Your task to perform on an android device: check google app version Image 0: 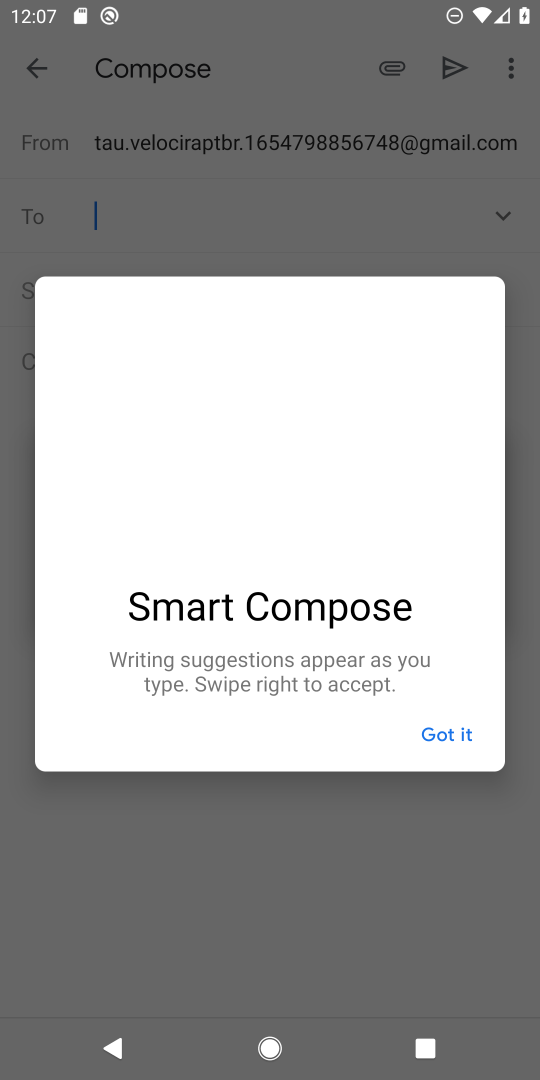
Step 0: press back button
Your task to perform on an android device: check google app version Image 1: 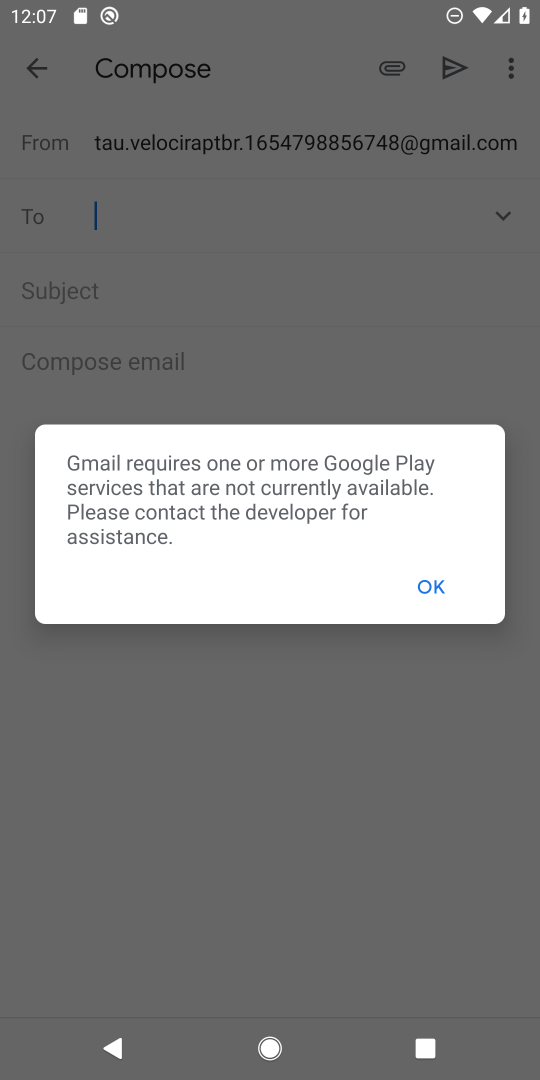
Step 1: click (415, 572)
Your task to perform on an android device: check google app version Image 2: 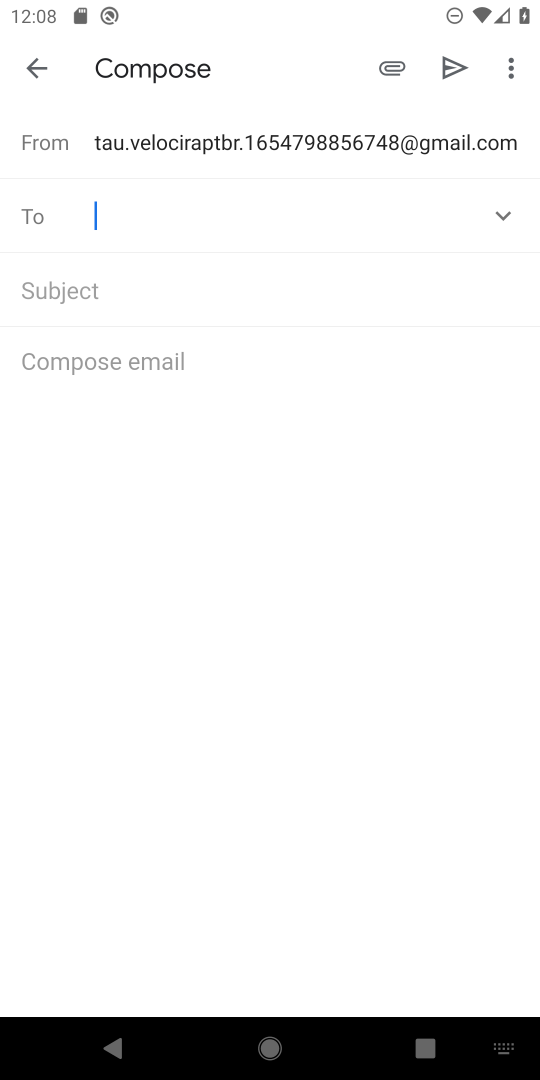
Step 2: press back button
Your task to perform on an android device: check google app version Image 3: 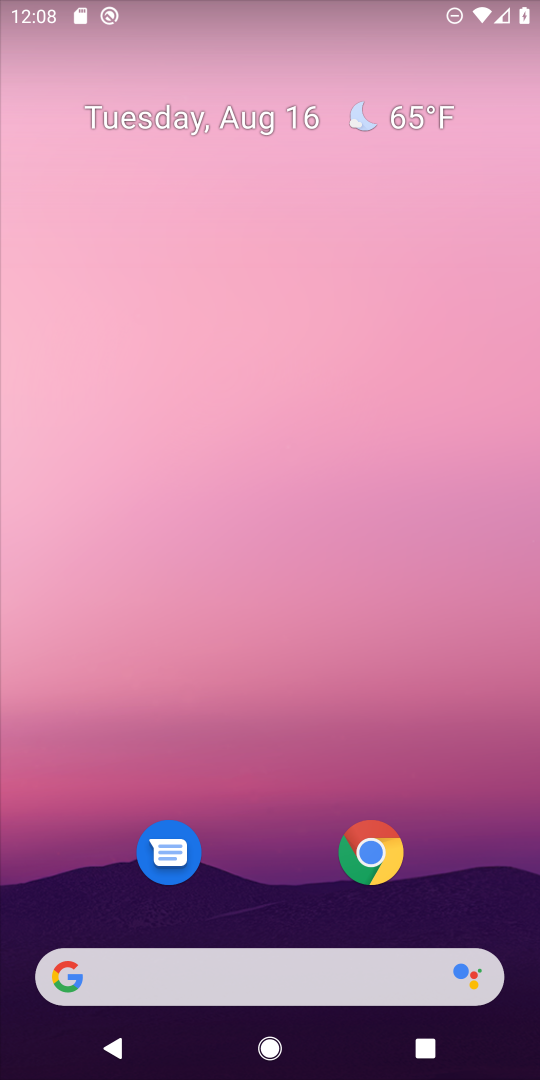
Step 3: drag from (268, 914) to (324, 167)
Your task to perform on an android device: check google app version Image 4: 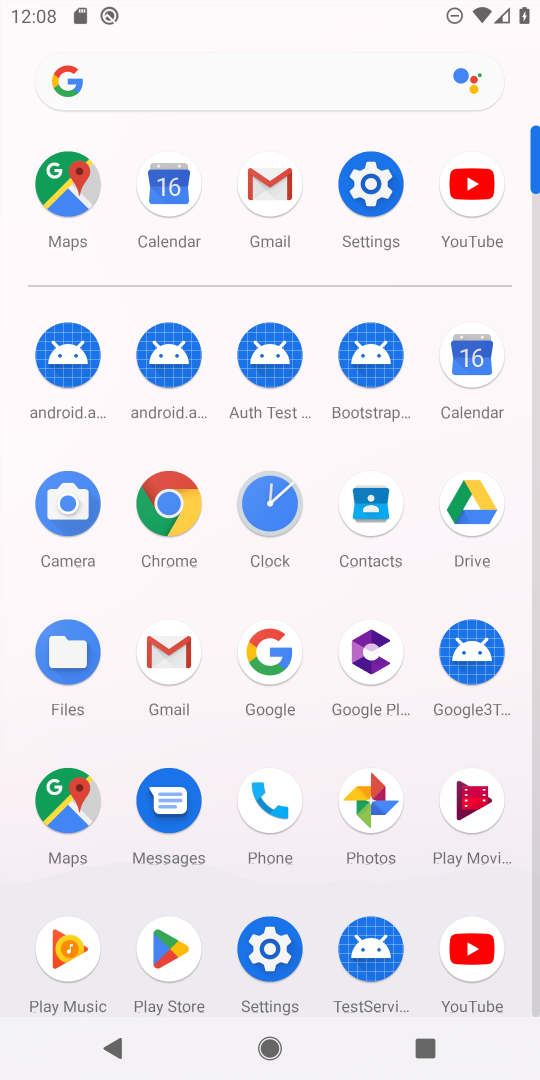
Step 4: click (267, 667)
Your task to perform on an android device: check google app version Image 5: 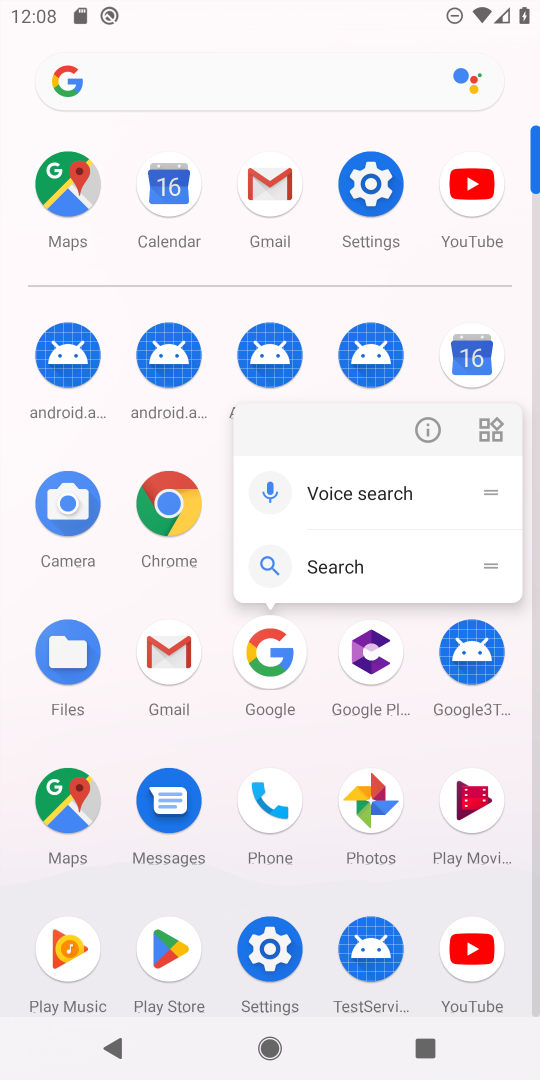
Step 5: click (430, 428)
Your task to perform on an android device: check google app version Image 6: 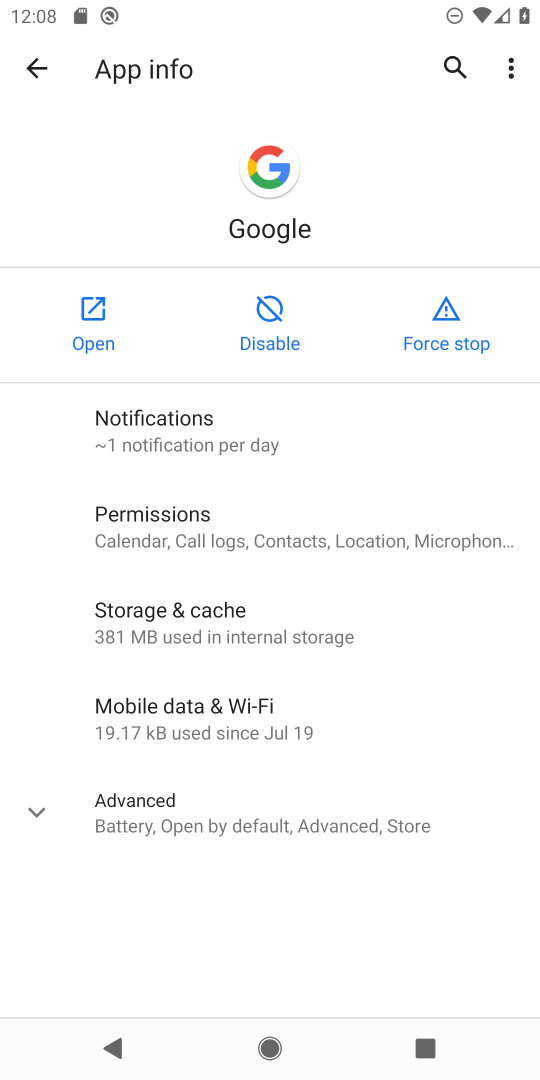
Step 6: click (207, 810)
Your task to perform on an android device: check google app version Image 7: 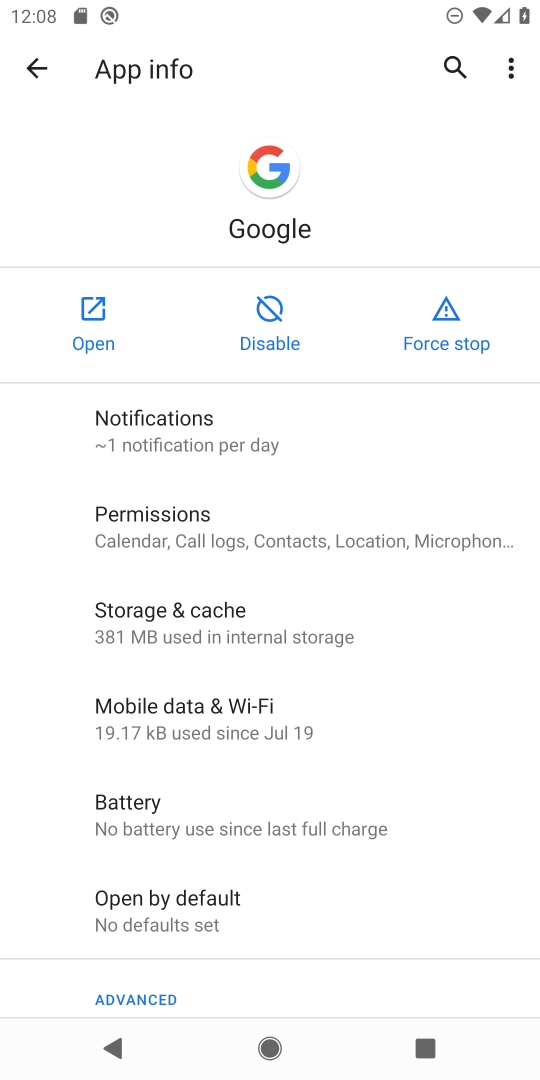
Step 7: task complete